Your task to perform on an android device: Open Maps and search for coffee Image 0: 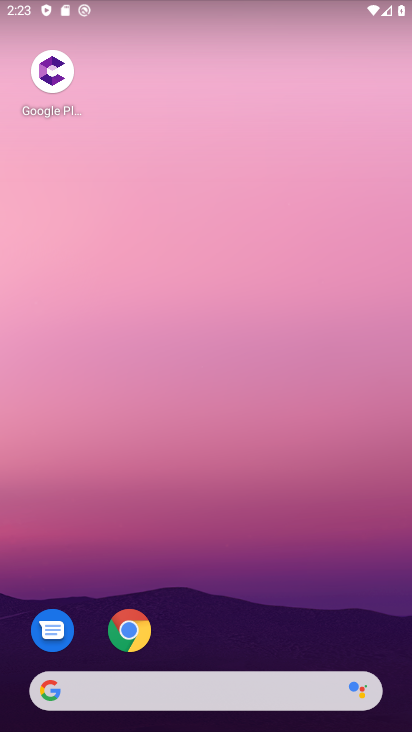
Step 0: drag from (227, 533) to (251, 1)
Your task to perform on an android device: Open Maps and search for coffee Image 1: 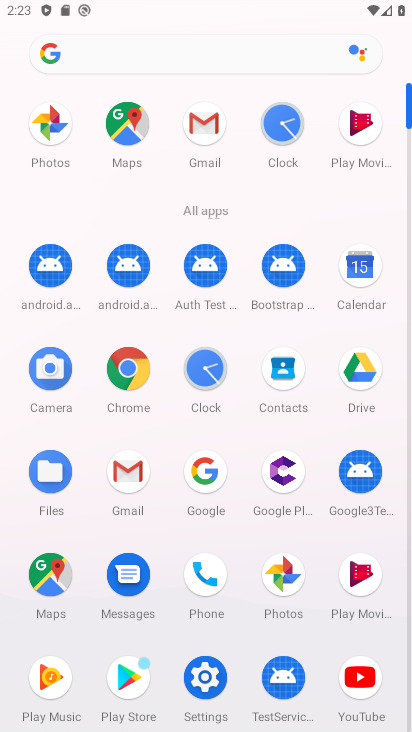
Step 1: click (56, 579)
Your task to perform on an android device: Open Maps and search for coffee Image 2: 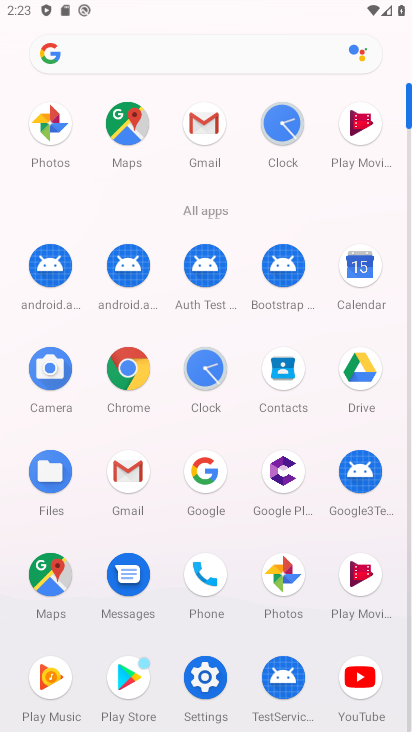
Step 2: click (54, 562)
Your task to perform on an android device: Open Maps and search for coffee Image 3: 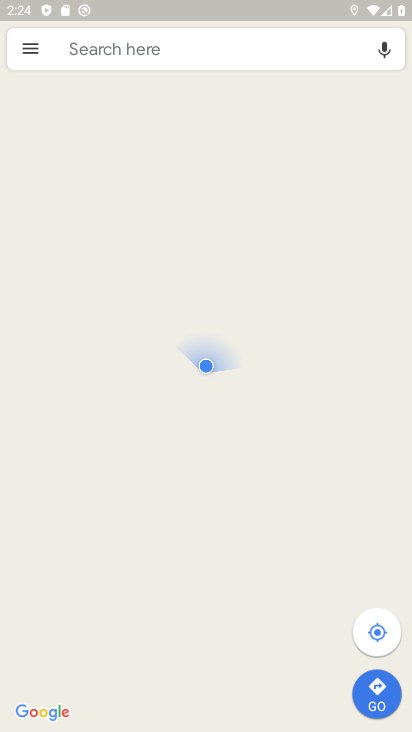
Step 3: click (185, 43)
Your task to perform on an android device: Open Maps and search for coffee Image 4: 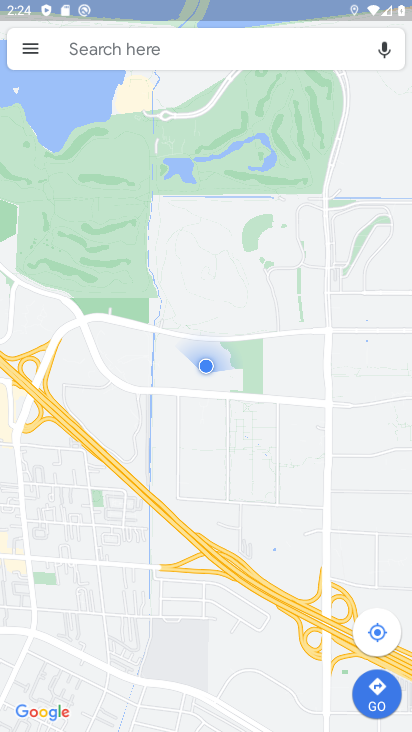
Step 4: type "coffee"
Your task to perform on an android device: Open Maps and search for coffee Image 5: 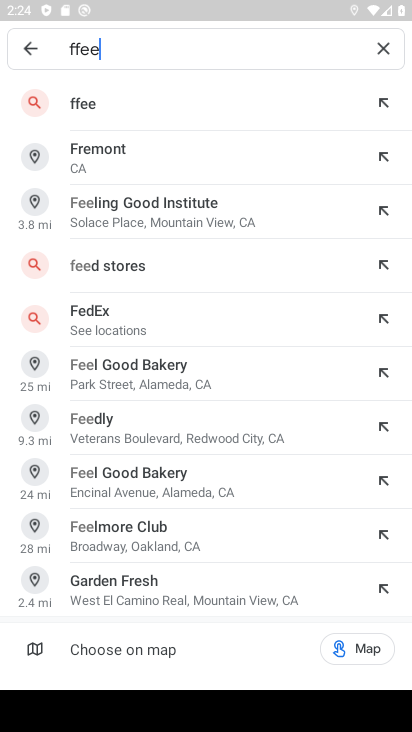
Step 5: click (65, 43)
Your task to perform on an android device: Open Maps and search for coffee Image 6: 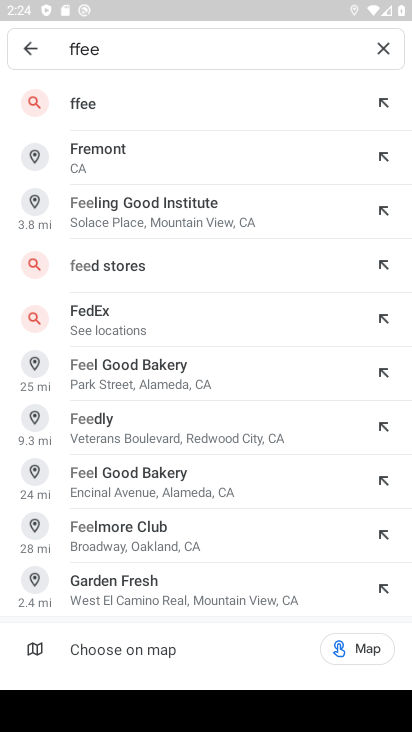
Step 6: click (70, 46)
Your task to perform on an android device: Open Maps and search for coffee Image 7: 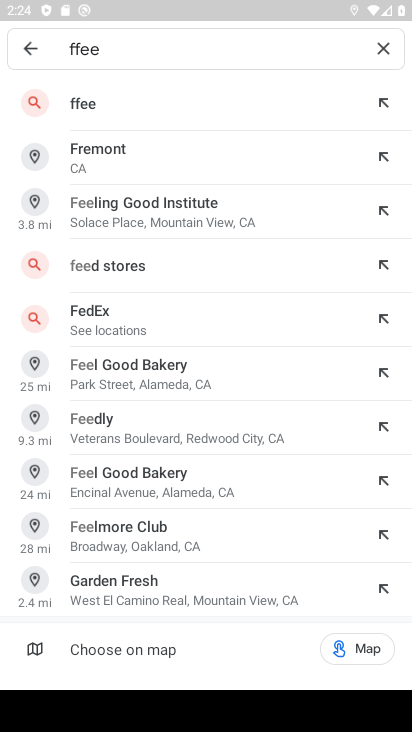
Step 7: type "co"
Your task to perform on an android device: Open Maps and search for coffee Image 8: 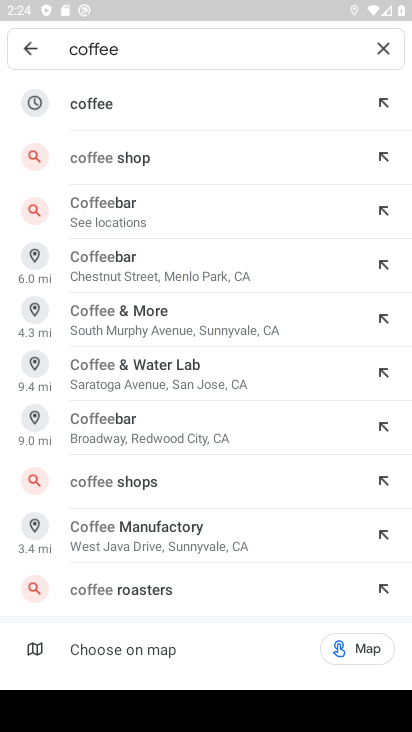
Step 8: click (127, 107)
Your task to perform on an android device: Open Maps and search for coffee Image 9: 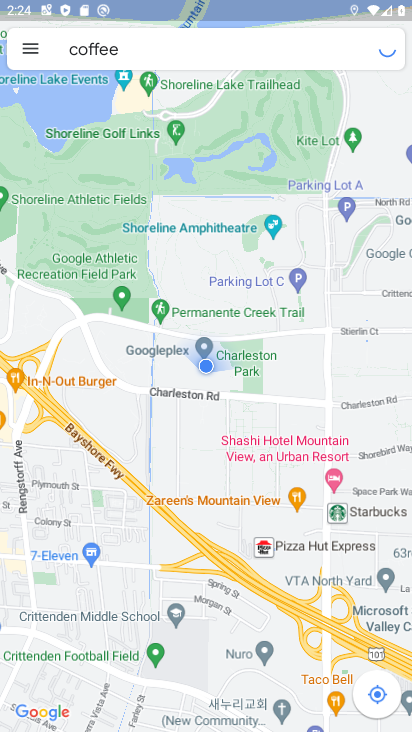
Step 9: click (173, 97)
Your task to perform on an android device: Open Maps and search for coffee Image 10: 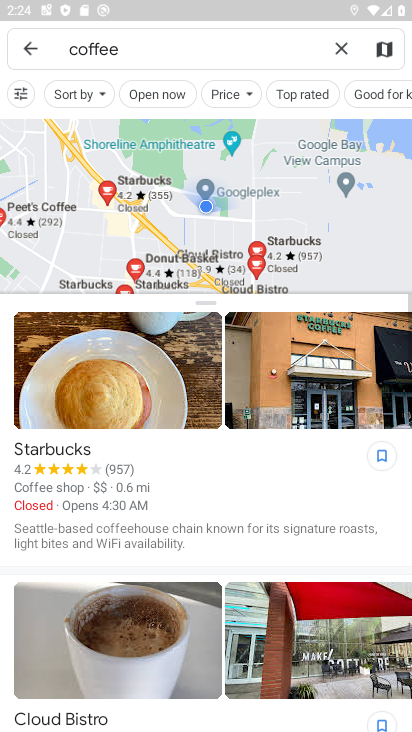
Step 10: task complete